Your task to perform on an android device: turn off notifications in google photos Image 0: 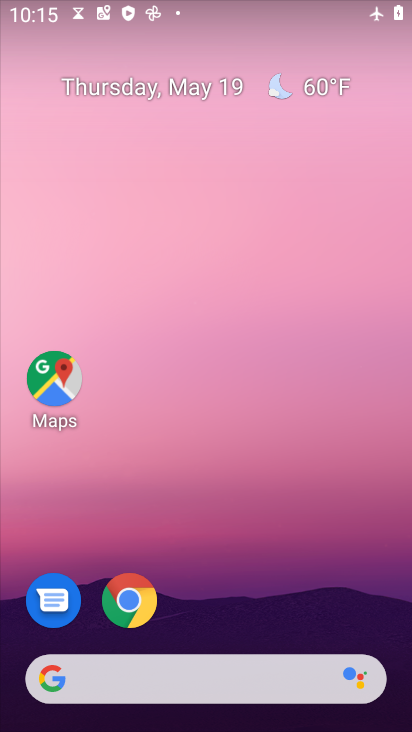
Step 0: drag from (256, 400) to (239, 31)
Your task to perform on an android device: turn off notifications in google photos Image 1: 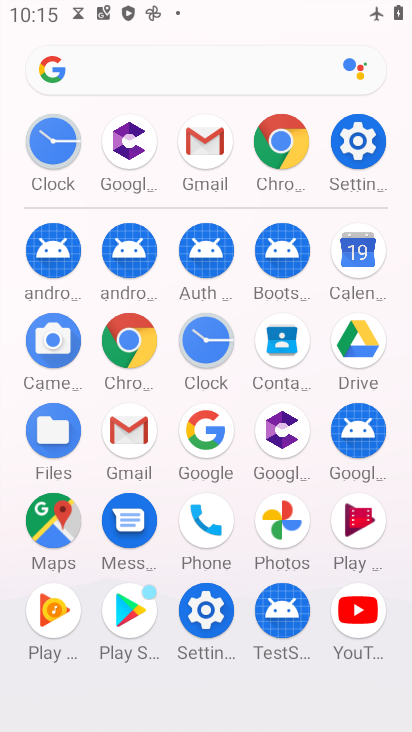
Step 1: drag from (4, 529) to (16, 197)
Your task to perform on an android device: turn off notifications in google photos Image 2: 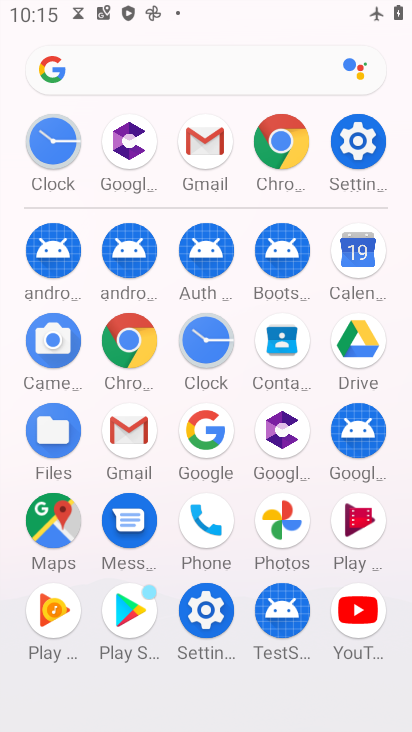
Step 2: drag from (21, 518) to (14, 230)
Your task to perform on an android device: turn off notifications in google photos Image 3: 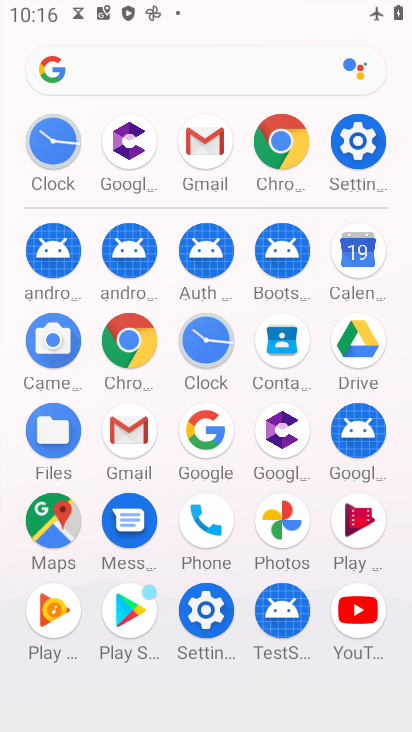
Step 3: drag from (33, 528) to (11, 286)
Your task to perform on an android device: turn off notifications in google photos Image 4: 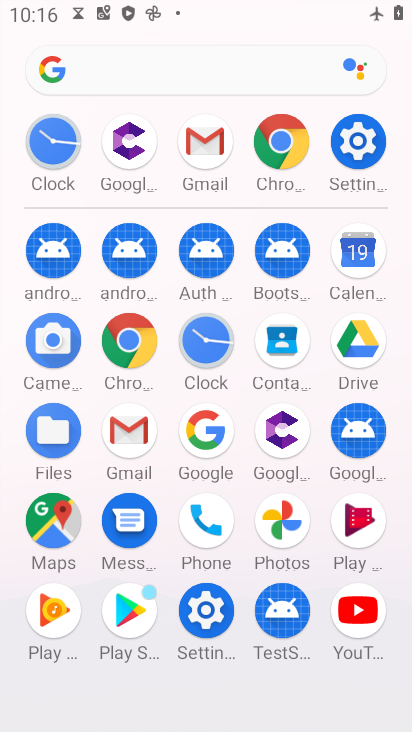
Step 4: click (276, 519)
Your task to perform on an android device: turn off notifications in google photos Image 5: 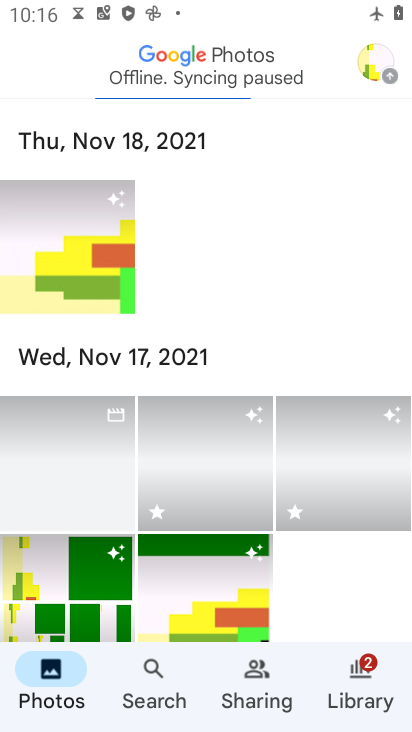
Step 5: click (371, 65)
Your task to perform on an android device: turn off notifications in google photos Image 6: 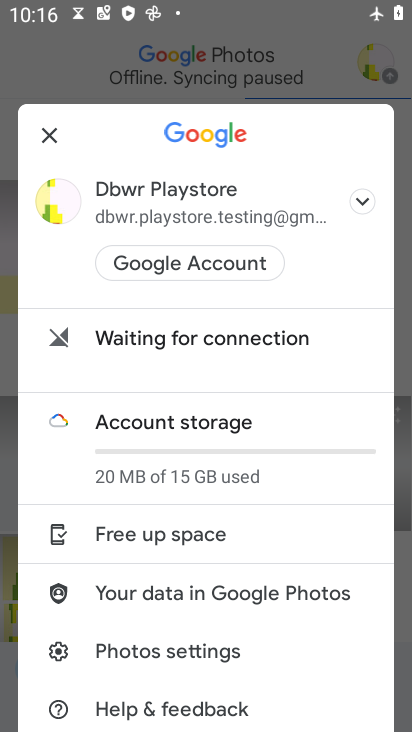
Step 6: click (184, 642)
Your task to perform on an android device: turn off notifications in google photos Image 7: 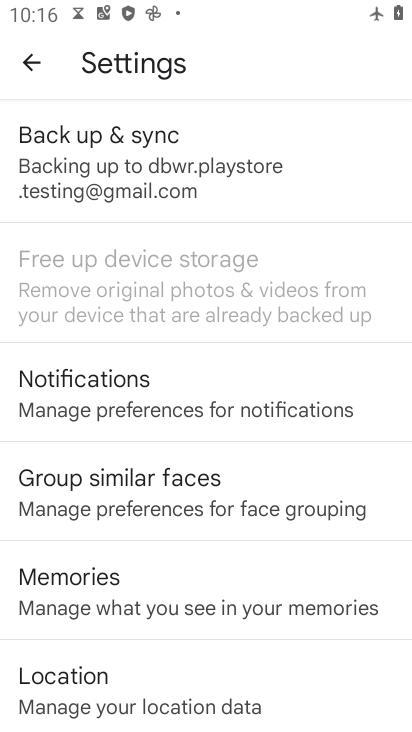
Step 7: drag from (228, 603) to (248, 276)
Your task to perform on an android device: turn off notifications in google photos Image 8: 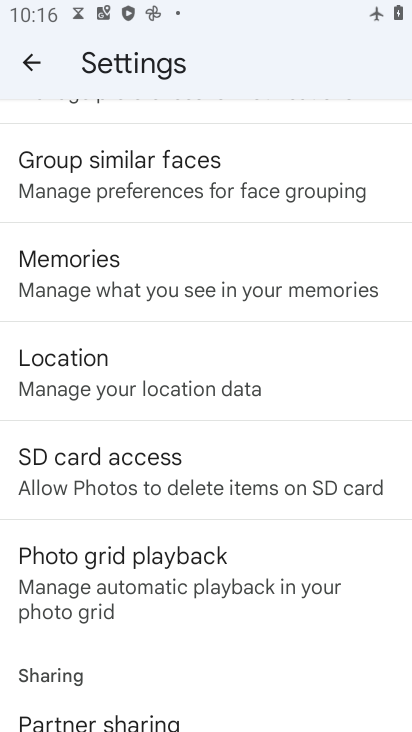
Step 8: drag from (230, 202) to (222, 513)
Your task to perform on an android device: turn off notifications in google photos Image 9: 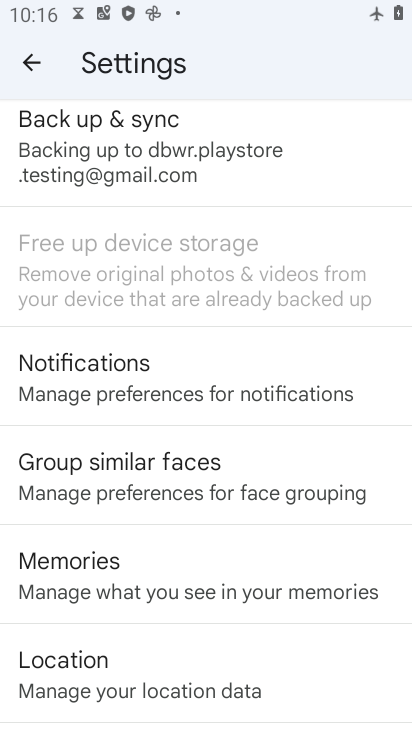
Step 9: click (165, 361)
Your task to perform on an android device: turn off notifications in google photos Image 10: 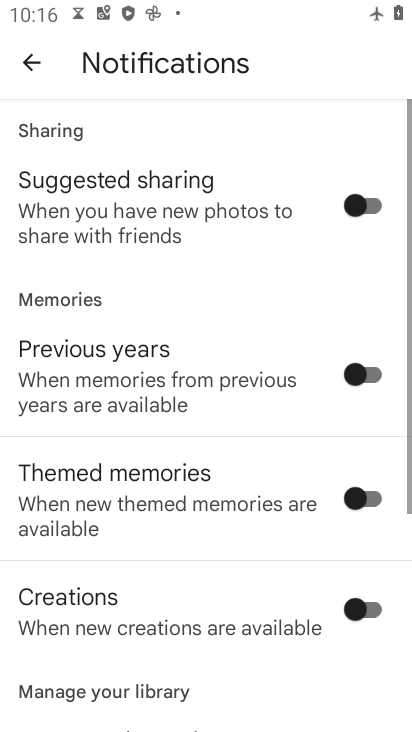
Step 10: drag from (171, 527) to (221, 175)
Your task to perform on an android device: turn off notifications in google photos Image 11: 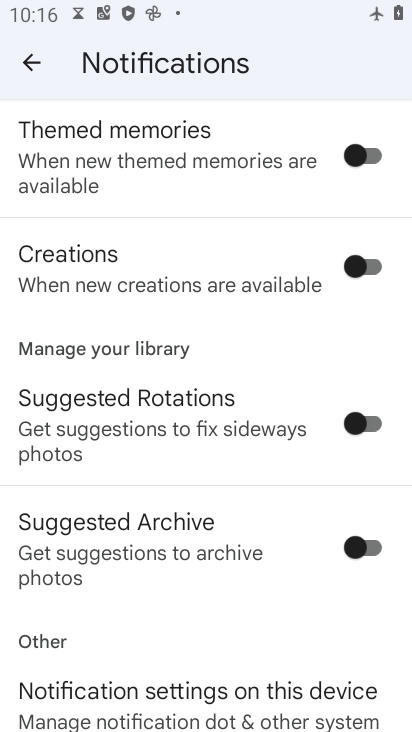
Step 11: drag from (157, 615) to (209, 143)
Your task to perform on an android device: turn off notifications in google photos Image 12: 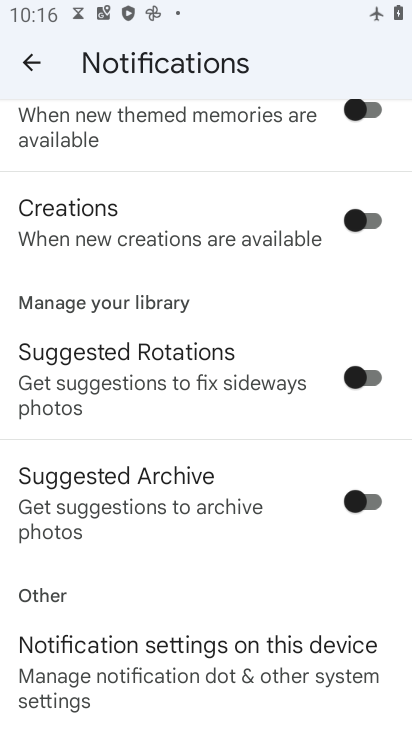
Step 12: drag from (145, 656) to (142, 266)
Your task to perform on an android device: turn off notifications in google photos Image 13: 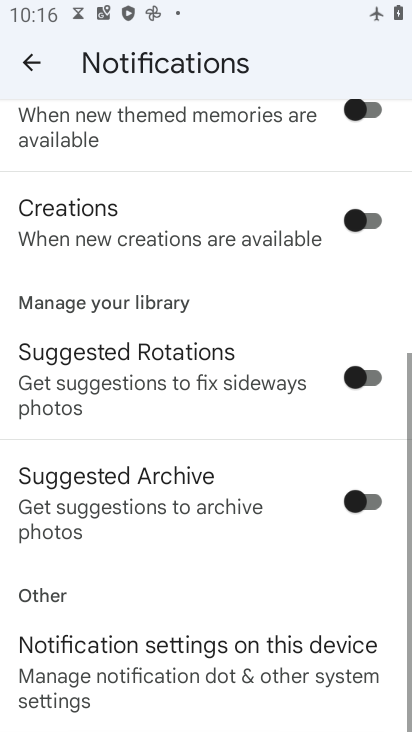
Step 13: click (115, 643)
Your task to perform on an android device: turn off notifications in google photos Image 14: 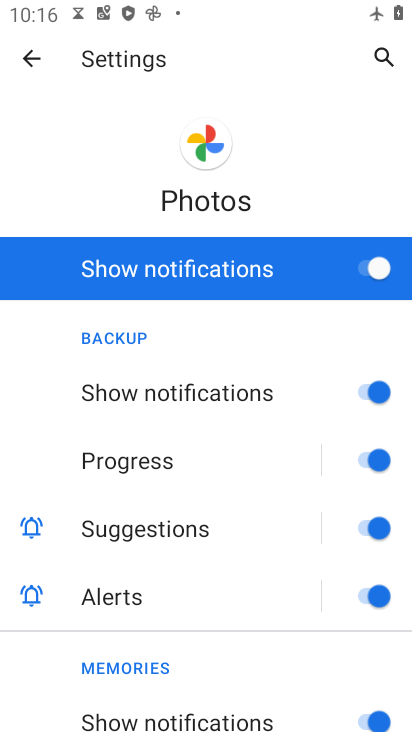
Step 14: drag from (272, 601) to (267, 184)
Your task to perform on an android device: turn off notifications in google photos Image 15: 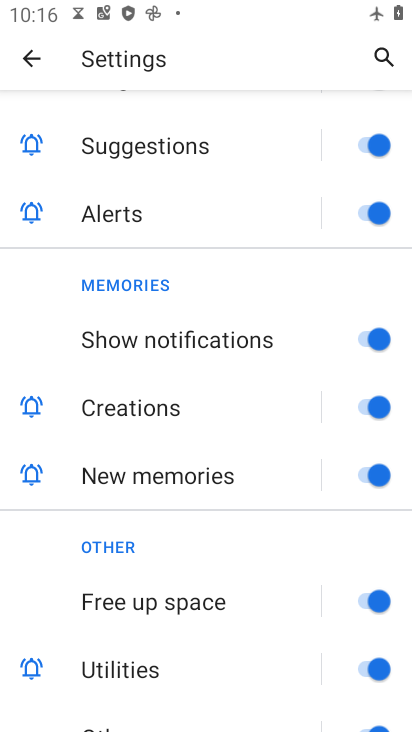
Step 15: drag from (261, 571) to (240, 79)
Your task to perform on an android device: turn off notifications in google photos Image 16: 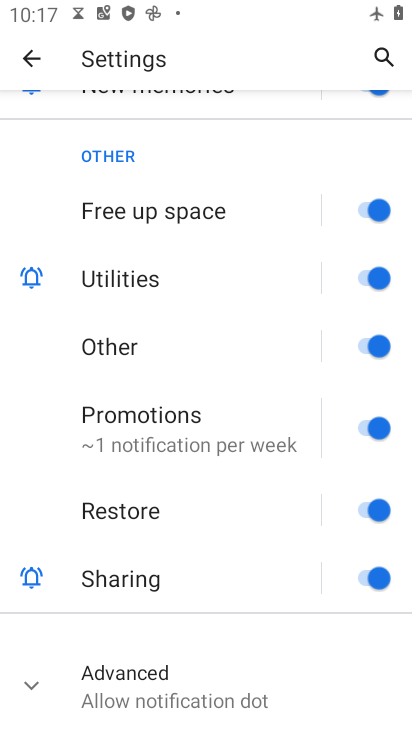
Step 16: drag from (167, 238) to (175, 634)
Your task to perform on an android device: turn off notifications in google photos Image 17: 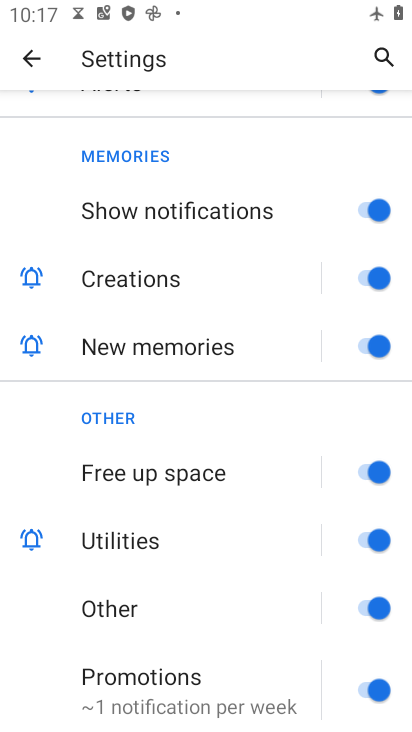
Step 17: drag from (168, 204) to (170, 669)
Your task to perform on an android device: turn off notifications in google photos Image 18: 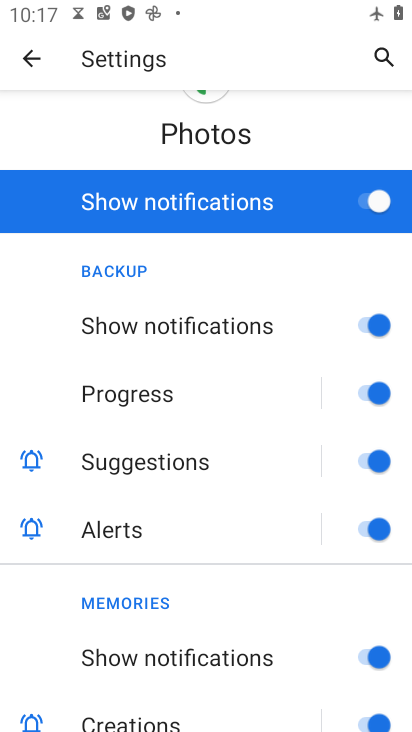
Step 18: click (369, 189)
Your task to perform on an android device: turn off notifications in google photos Image 19: 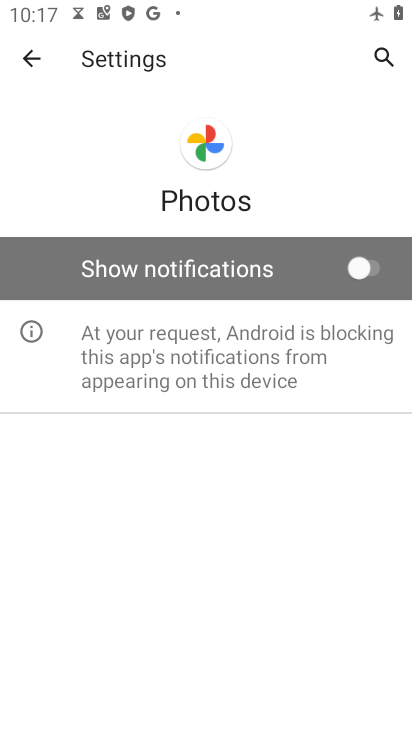
Step 19: task complete